Your task to perform on an android device: check android version Image 0: 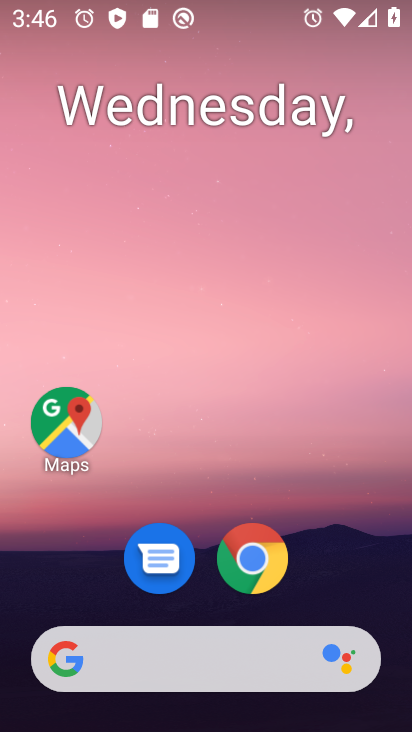
Step 0: drag from (234, 490) to (270, 201)
Your task to perform on an android device: check android version Image 1: 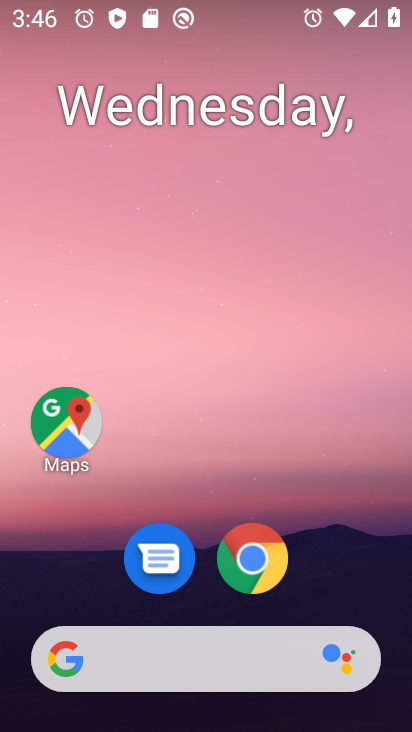
Step 1: drag from (197, 624) to (282, 191)
Your task to perform on an android device: check android version Image 2: 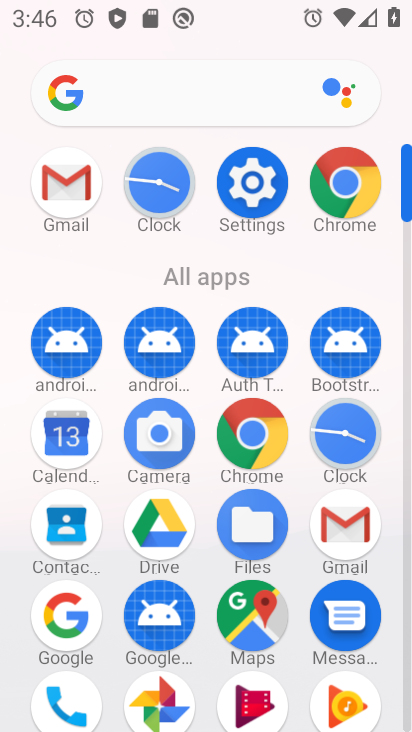
Step 2: click (258, 182)
Your task to perform on an android device: check android version Image 3: 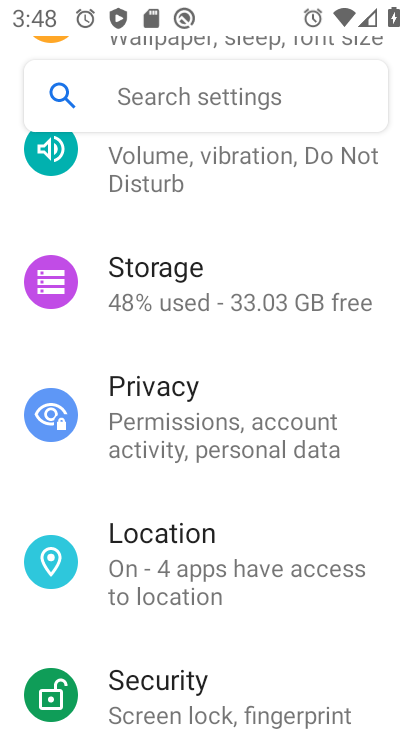
Step 3: drag from (180, 714) to (182, 266)
Your task to perform on an android device: check android version Image 4: 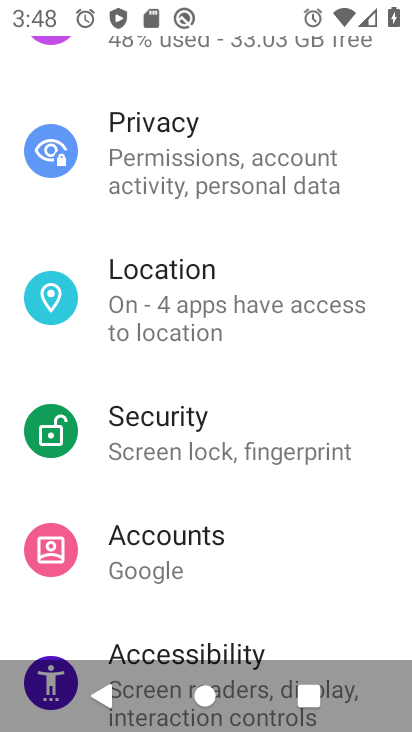
Step 4: drag from (191, 626) to (191, 237)
Your task to perform on an android device: check android version Image 5: 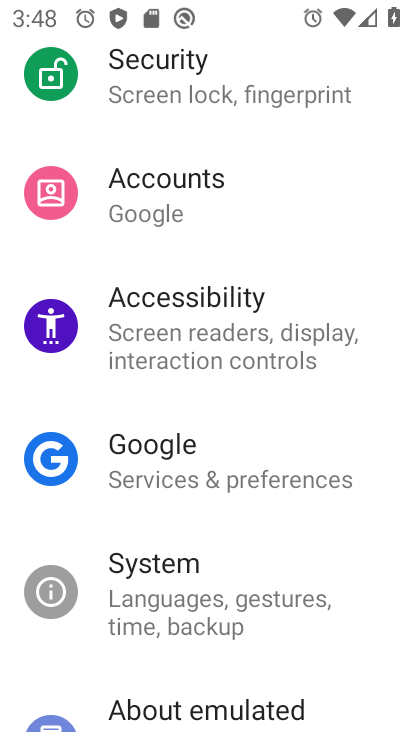
Step 5: drag from (186, 674) to (186, 254)
Your task to perform on an android device: check android version Image 6: 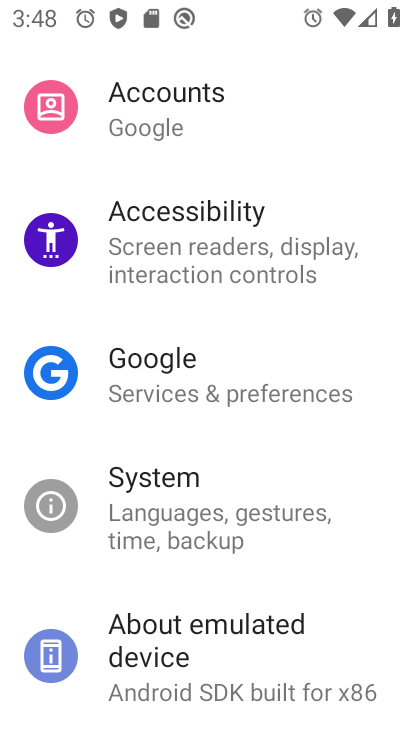
Step 6: click (177, 640)
Your task to perform on an android device: check android version Image 7: 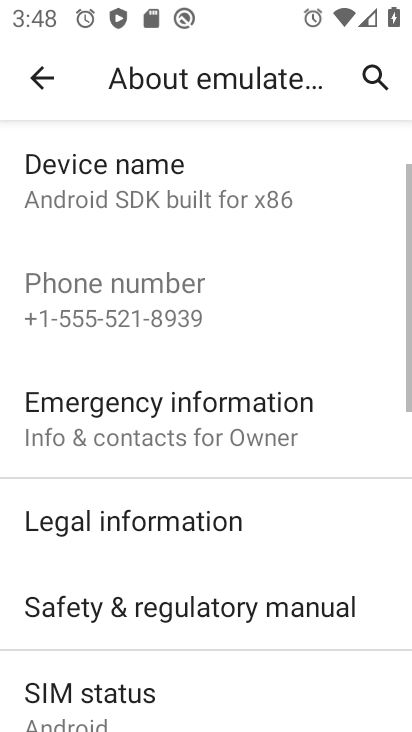
Step 7: task complete